Your task to perform on an android device: Do I have any events this weekend? Image 0: 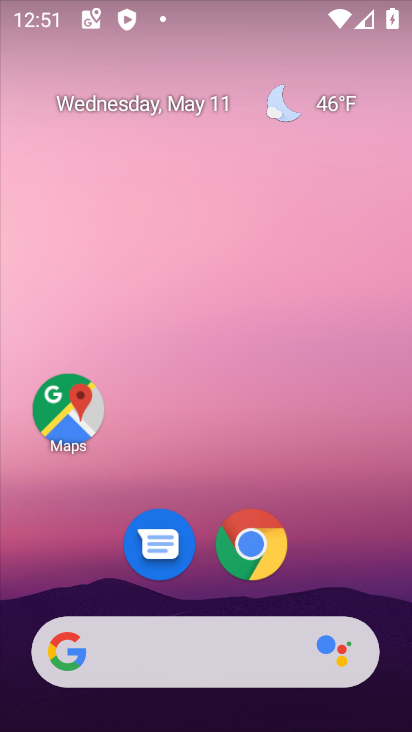
Step 0: drag from (382, 530) to (327, 124)
Your task to perform on an android device: Do I have any events this weekend? Image 1: 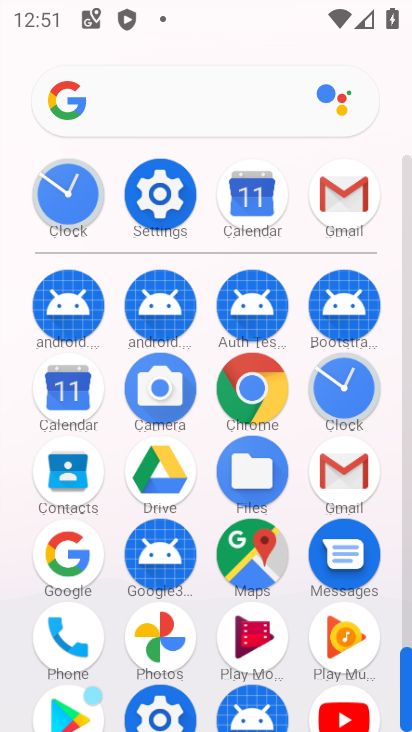
Step 1: click (410, 630)
Your task to perform on an android device: Do I have any events this weekend? Image 2: 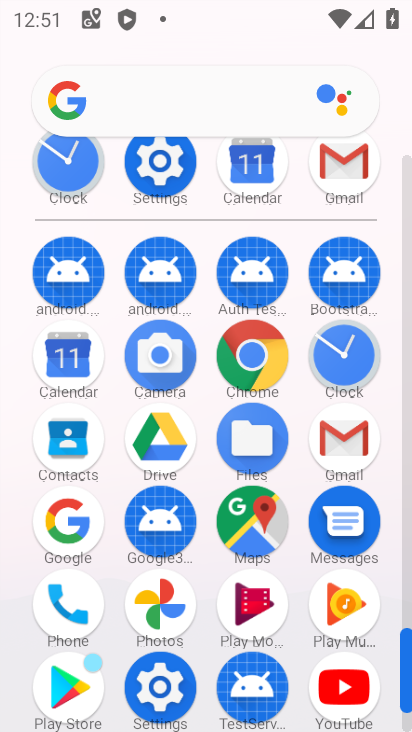
Step 2: click (64, 358)
Your task to perform on an android device: Do I have any events this weekend? Image 3: 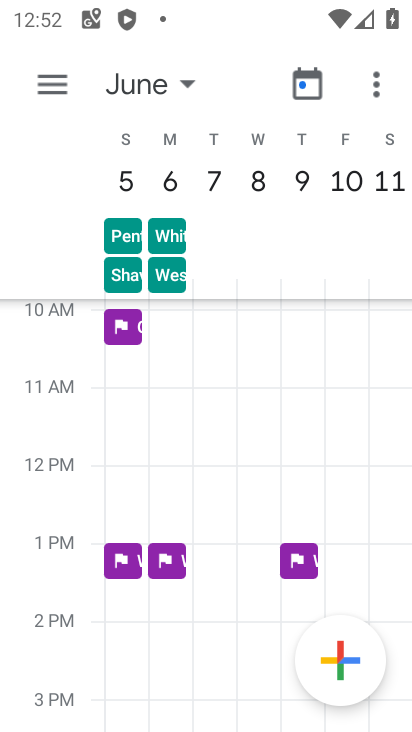
Step 3: click (182, 87)
Your task to perform on an android device: Do I have any events this weekend? Image 4: 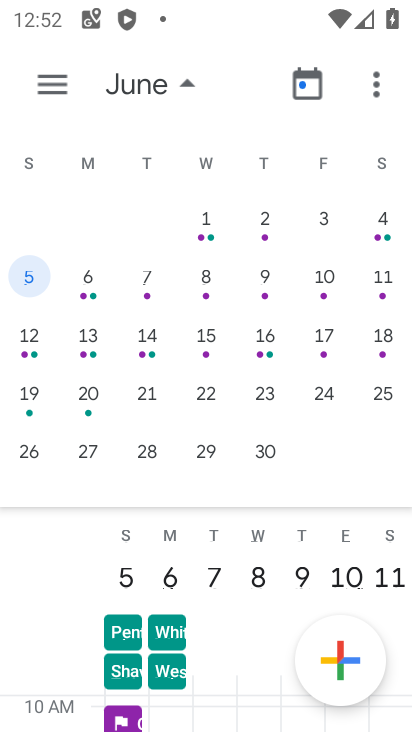
Step 4: drag from (50, 288) to (408, 277)
Your task to perform on an android device: Do I have any events this weekend? Image 5: 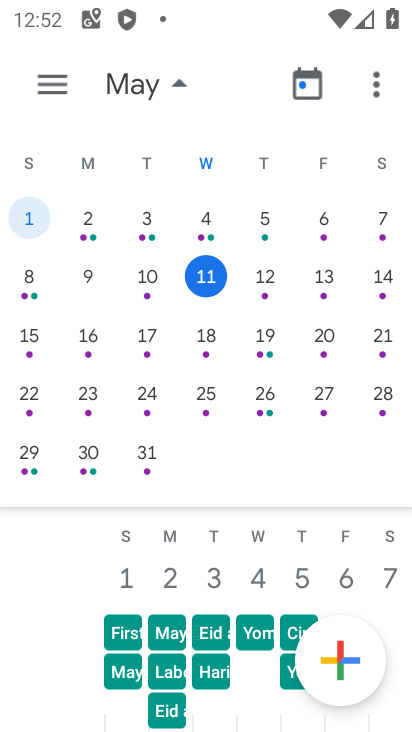
Step 5: click (166, 588)
Your task to perform on an android device: Do I have any events this weekend? Image 6: 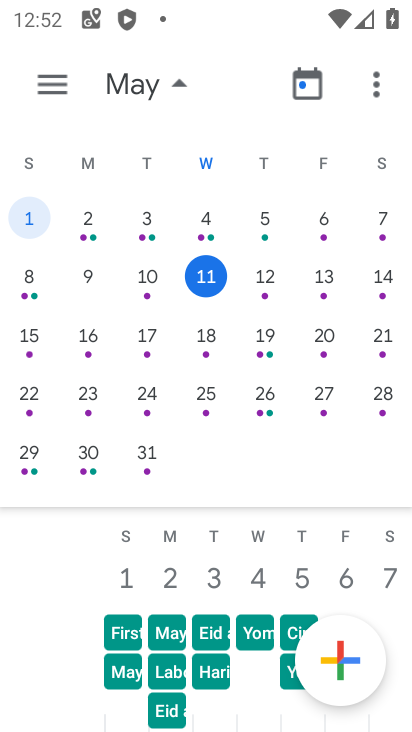
Step 6: click (205, 267)
Your task to perform on an android device: Do I have any events this weekend? Image 7: 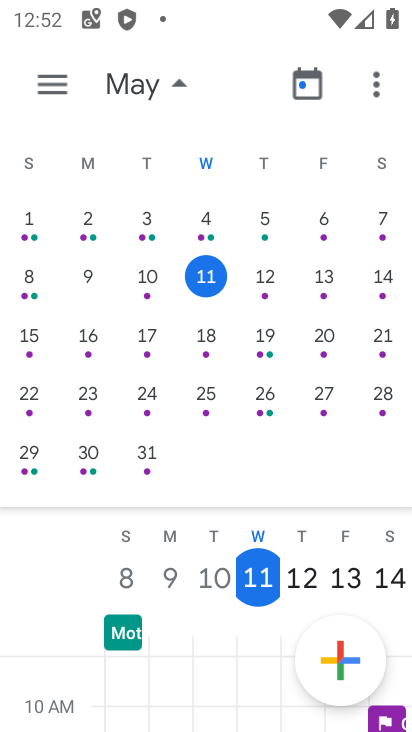
Step 7: task complete